Your task to perform on an android device: turn off improve location accuracy Image 0: 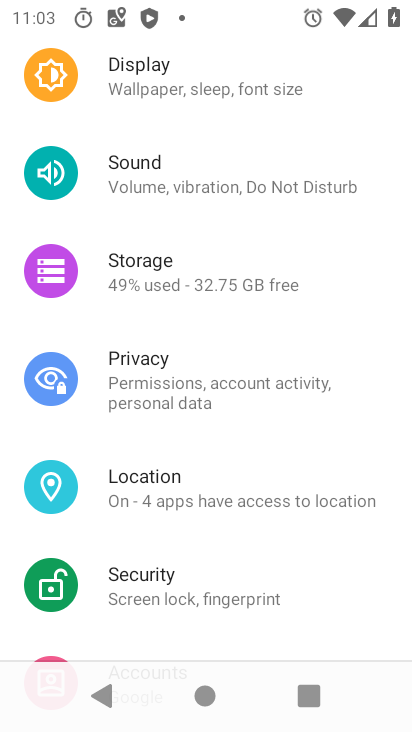
Step 0: click (148, 485)
Your task to perform on an android device: turn off improve location accuracy Image 1: 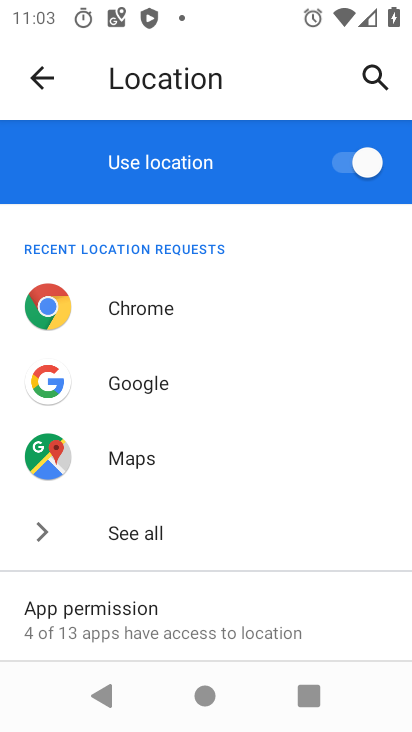
Step 1: drag from (175, 623) to (192, 277)
Your task to perform on an android device: turn off improve location accuracy Image 2: 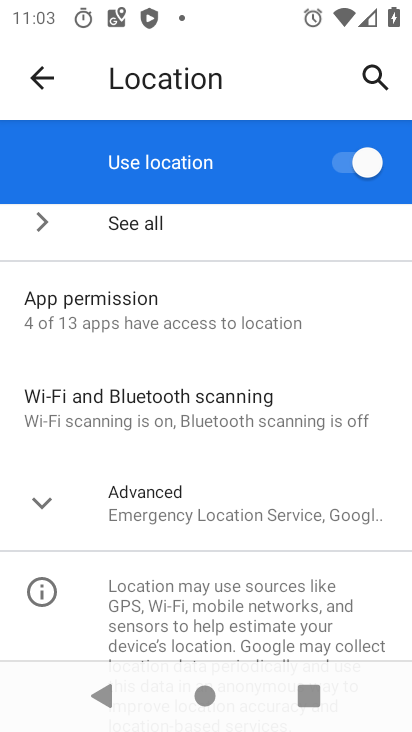
Step 2: click (164, 504)
Your task to perform on an android device: turn off improve location accuracy Image 3: 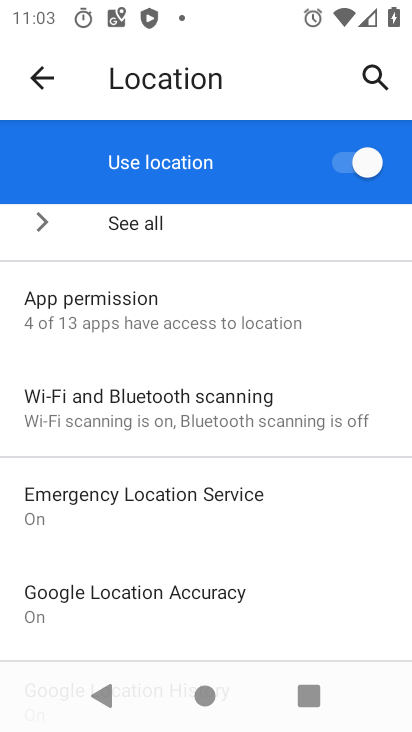
Step 3: click (146, 592)
Your task to perform on an android device: turn off improve location accuracy Image 4: 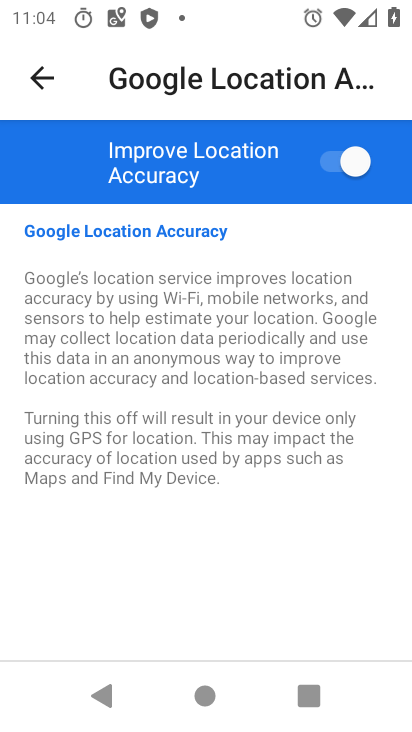
Step 4: click (331, 158)
Your task to perform on an android device: turn off improve location accuracy Image 5: 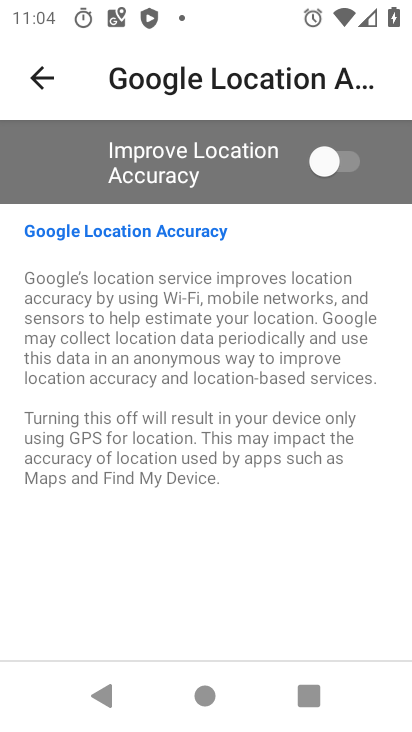
Step 5: task complete